Your task to perform on an android device: turn off wifi Image 0: 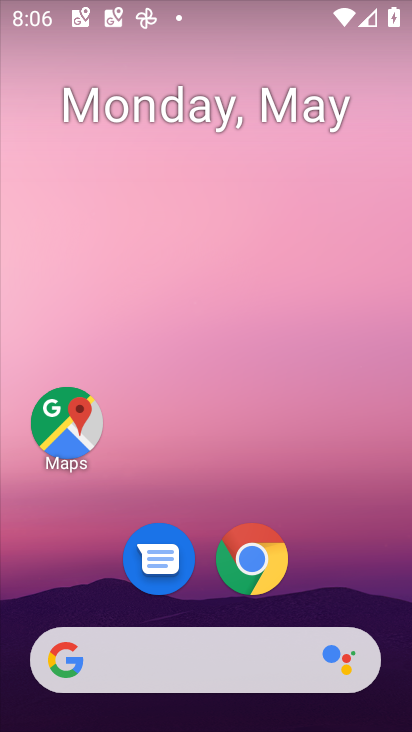
Step 0: drag from (395, 625) to (251, 2)
Your task to perform on an android device: turn off wifi Image 1: 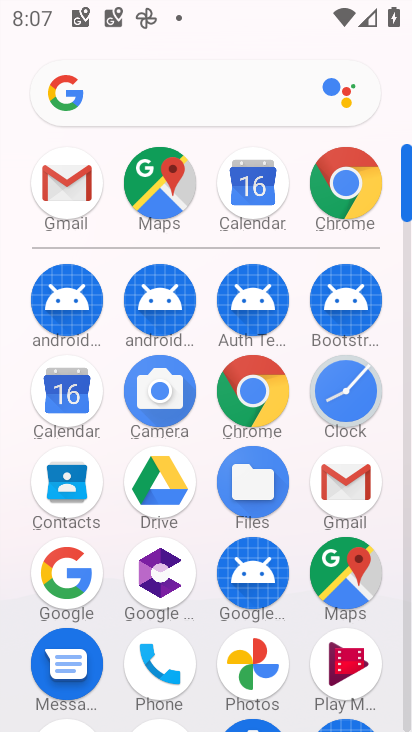
Step 1: drag from (178, 4) to (173, 437)
Your task to perform on an android device: turn off wifi Image 2: 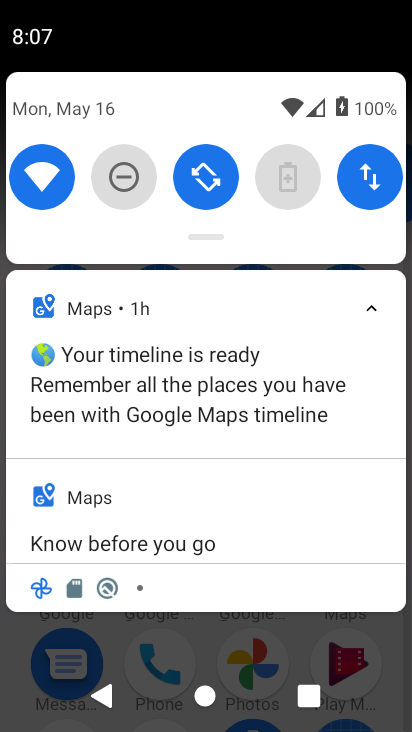
Step 2: click (38, 188)
Your task to perform on an android device: turn off wifi Image 3: 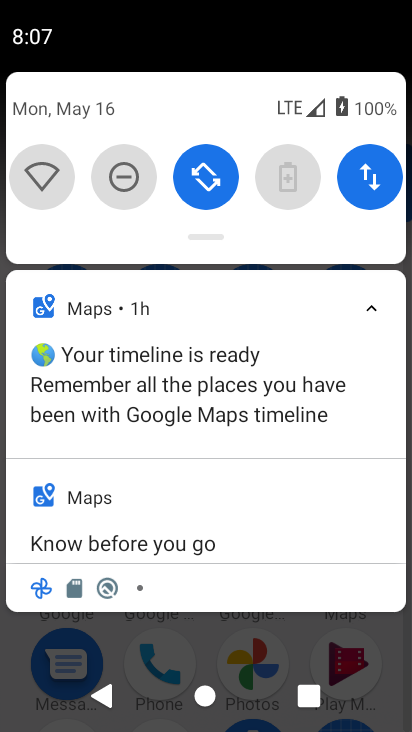
Step 3: task complete